Your task to perform on an android device: Go to location settings Image 0: 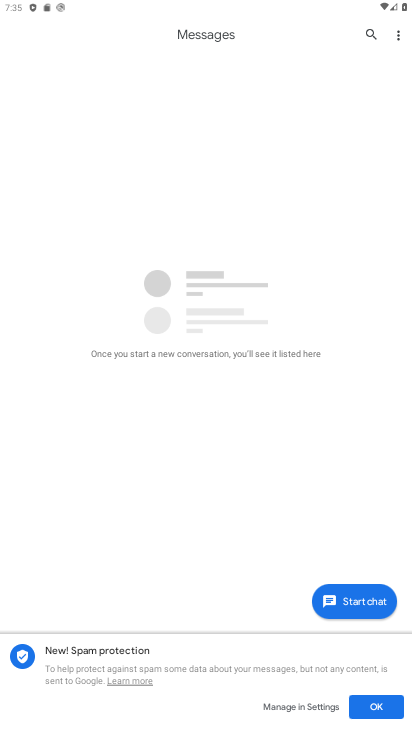
Step 0: press home button
Your task to perform on an android device: Go to location settings Image 1: 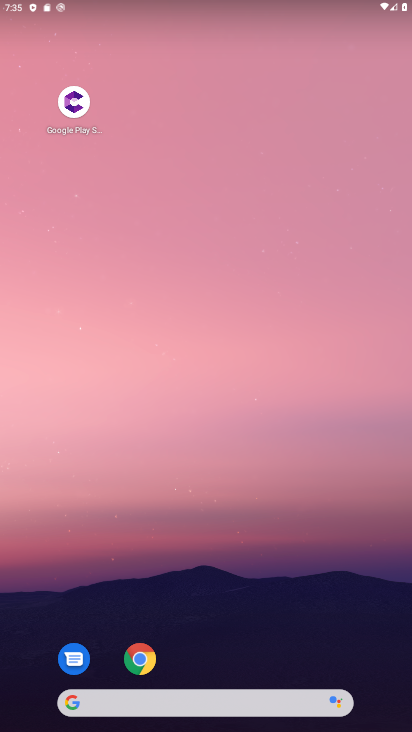
Step 1: drag from (260, 618) to (236, 99)
Your task to perform on an android device: Go to location settings Image 2: 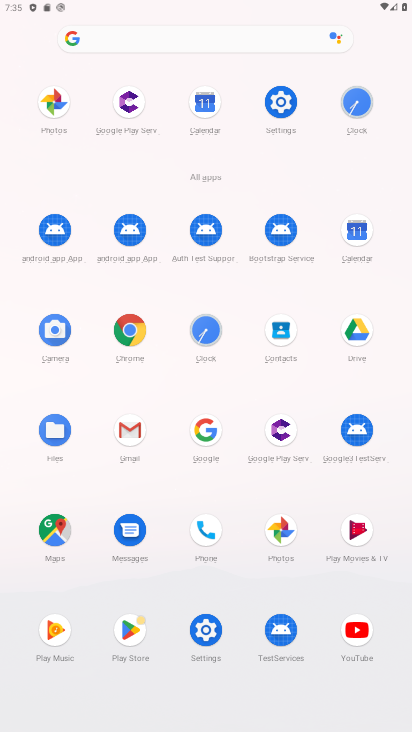
Step 2: click (288, 109)
Your task to perform on an android device: Go to location settings Image 3: 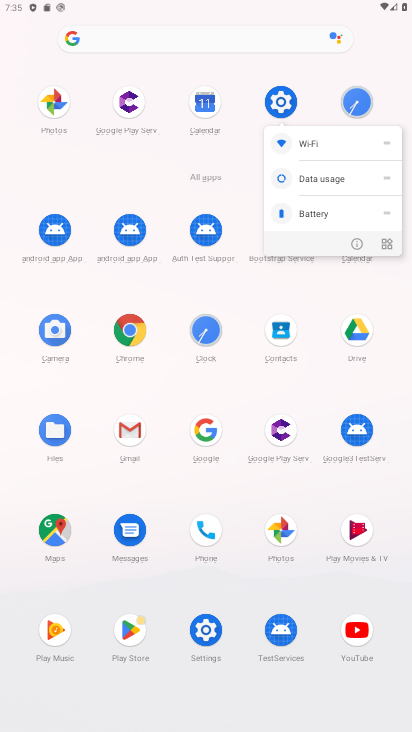
Step 3: click (288, 108)
Your task to perform on an android device: Go to location settings Image 4: 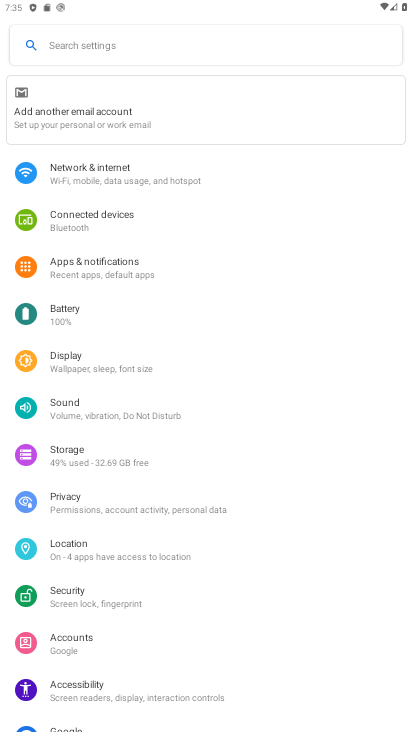
Step 4: click (113, 565)
Your task to perform on an android device: Go to location settings Image 5: 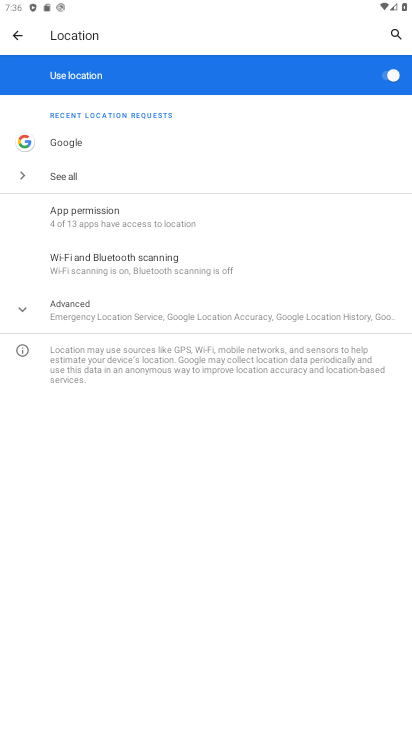
Step 5: task complete